Your task to perform on an android device: Search for seafood restaurants on Google Maps Image 0: 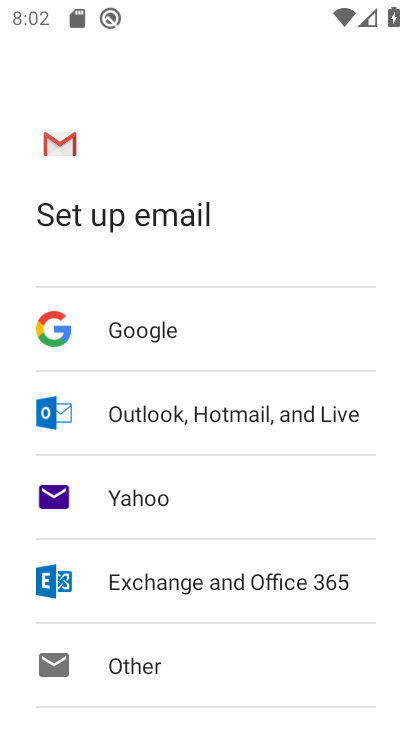
Step 0: press home button
Your task to perform on an android device: Search for seafood restaurants on Google Maps Image 1: 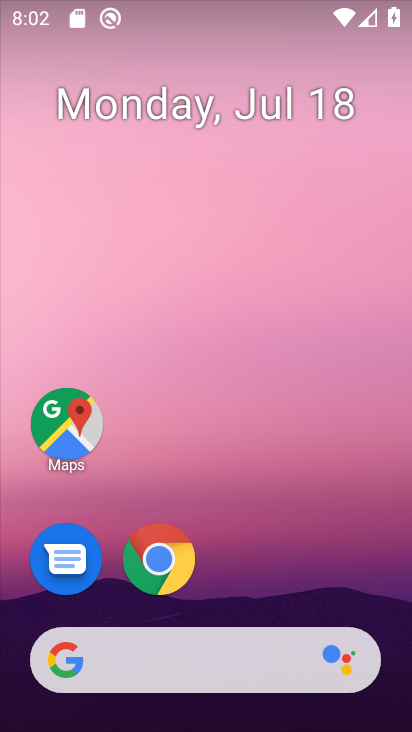
Step 1: drag from (347, 565) to (398, 139)
Your task to perform on an android device: Search for seafood restaurants on Google Maps Image 2: 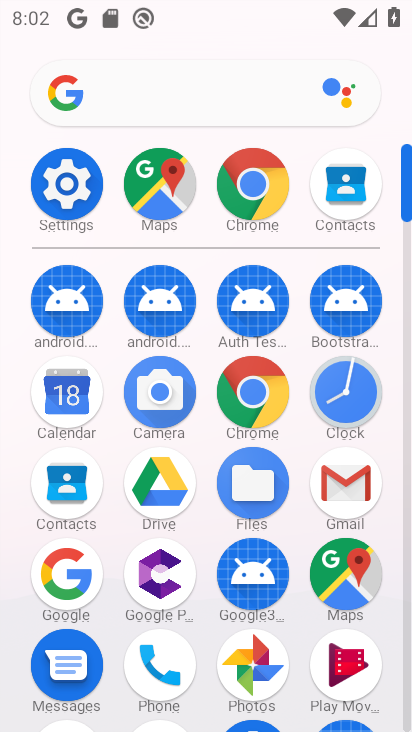
Step 2: click (352, 569)
Your task to perform on an android device: Search for seafood restaurants on Google Maps Image 3: 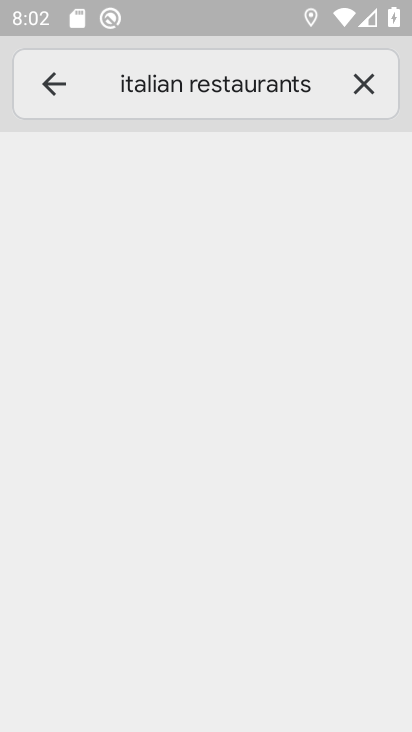
Step 3: press back button
Your task to perform on an android device: Search for seafood restaurants on Google Maps Image 4: 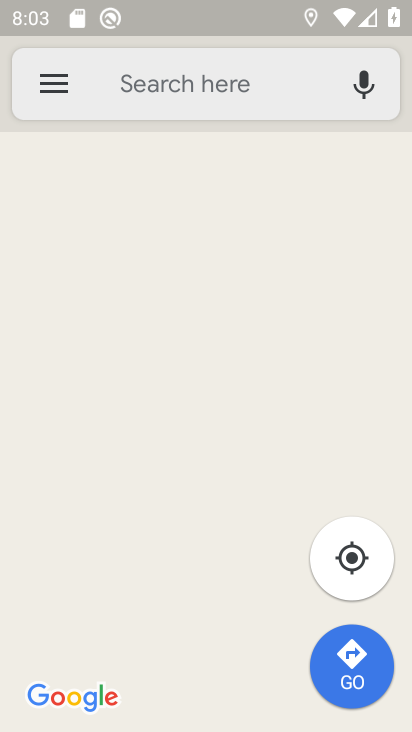
Step 4: click (191, 94)
Your task to perform on an android device: Search for seafood restaurants on Google Maps Image 5: 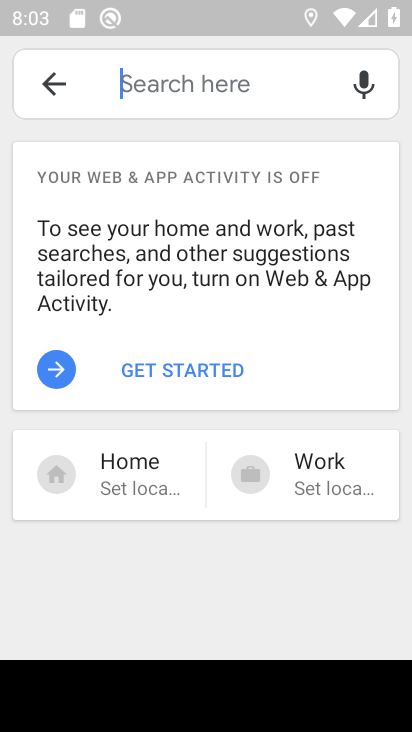
Step 5: type "seafood restaurants"
Your task to perform on an android device: Search for seafood restaurants on Google Maps Image 6: 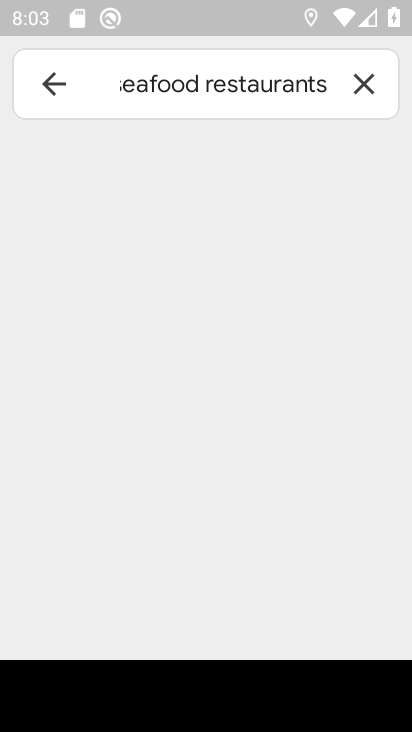
Step 6: task complete